Your task to perform on an android device: turn off notifications in google photos Image 0: 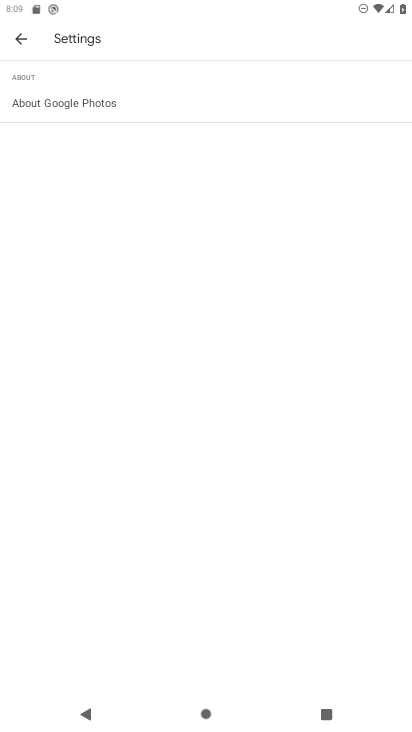
Step 0: press home button
Your task to perform on an android device: turn off notifications in google photos Image 1: 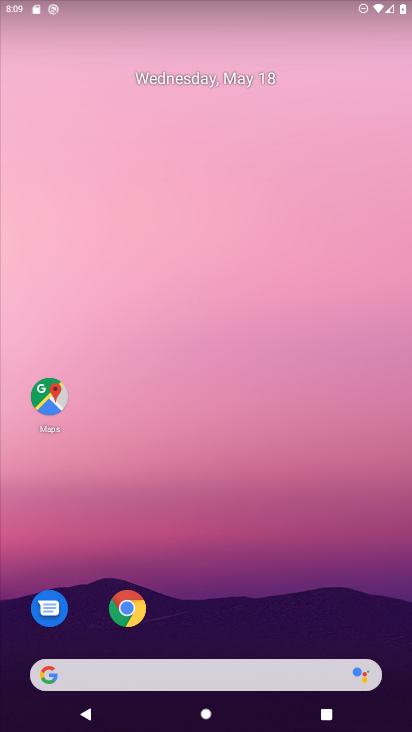
Step 1: drag from (301, 593) to (209, 6)
Your task to perform on an android device: turn off notifications in google photos Image 2: 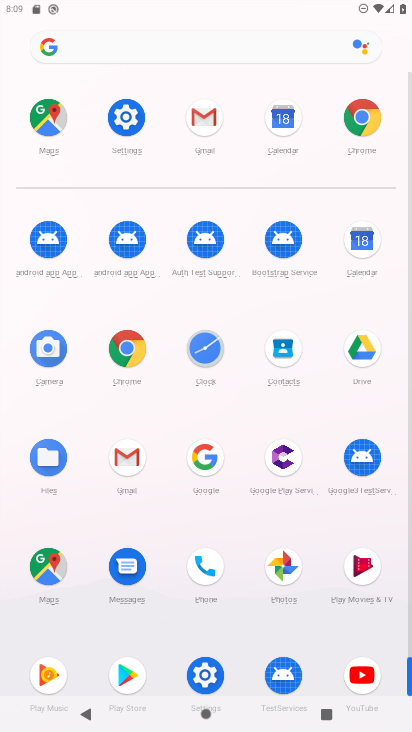
Step 2: click (288, 568)
Your task to perform on an android device: turn off notifications in google photos Image 3: 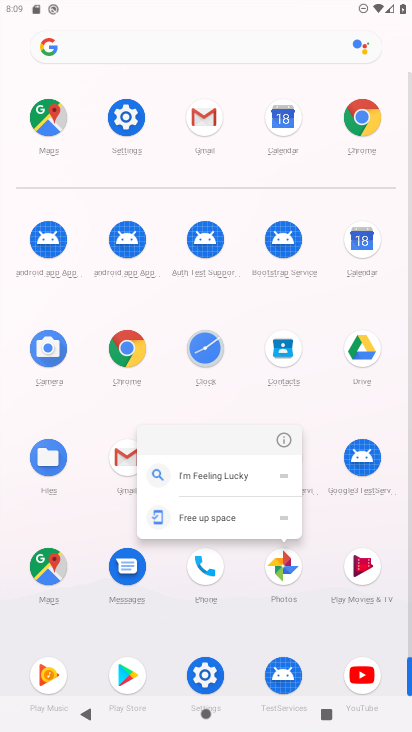
Step 3: click (288, 569)
Your task to perform on an android device: turn off notifications in google photos Image 4: 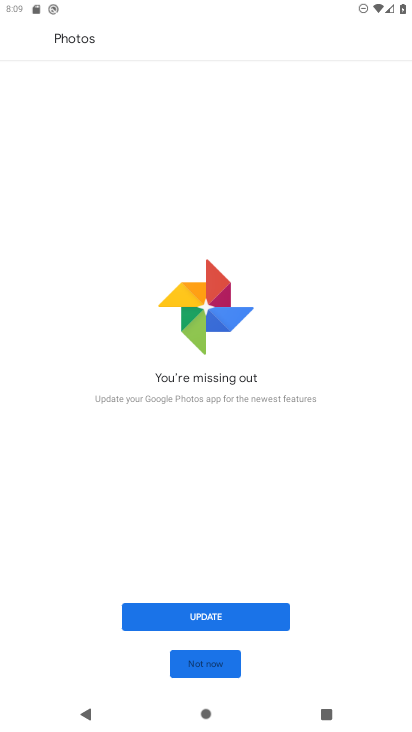
Step 4: press back button
Your task to perform on an android device: turn off notifications in google photos Image 5: 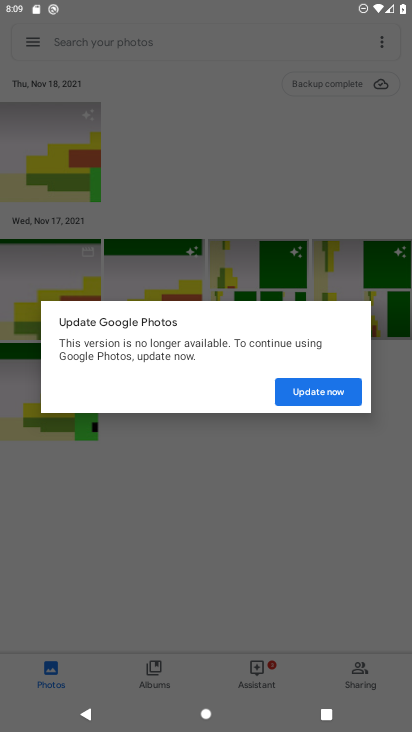
Step 5: press home button
Your task to perform on an android device: turn off notifications in google photos Image 6: 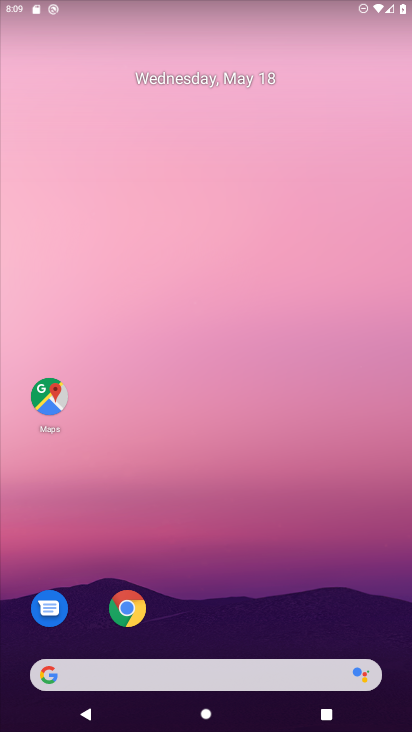
Step 6: drag from (308, 621) to (275, 51)
Your task to perform on an android device: turn off notifications in google photos Image 7: 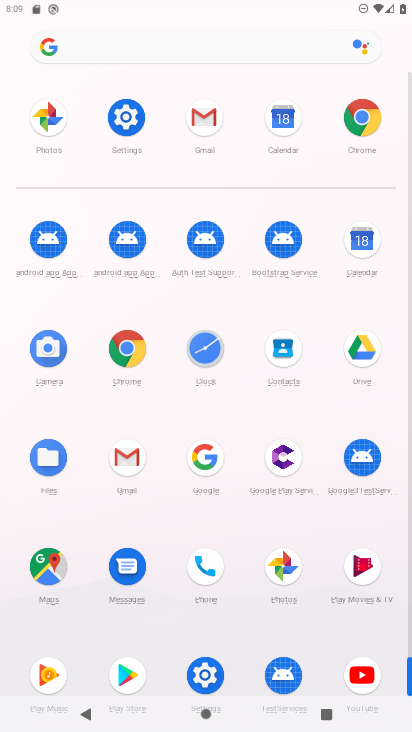
Step 7: click (277, 576)
Your task to perform on an android device: turn off notifications in google photos Image 8: 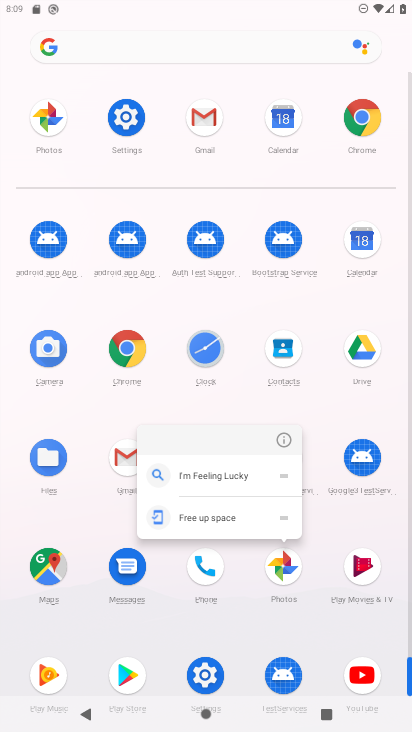
Step 8: click (282, 440)
Your task to perform on an android device: turn off notifications in google photos Image 9: 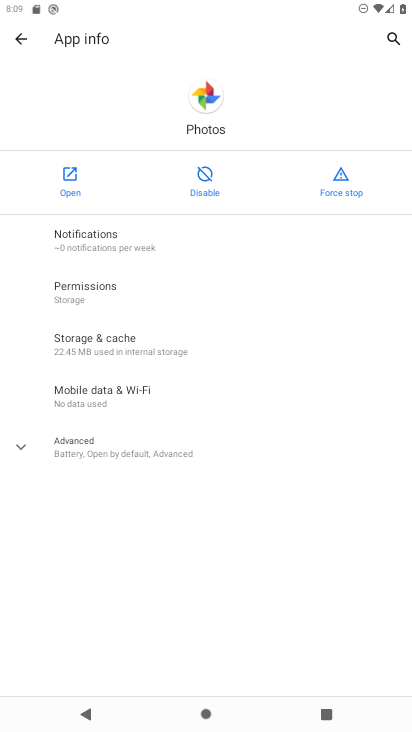
Step 9: click (117, 241)
Your task to perform on an android device: turn off notifications in google photos Image 10: 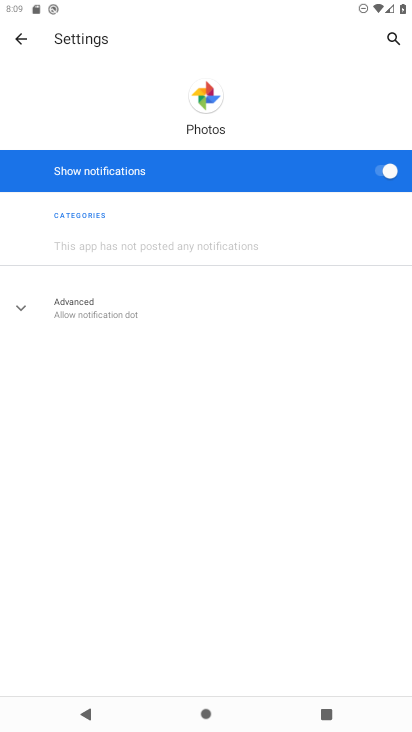
Step 10: click (386, 175)
Your task to perform on an android device: turn off notifications in google photos Image 11: 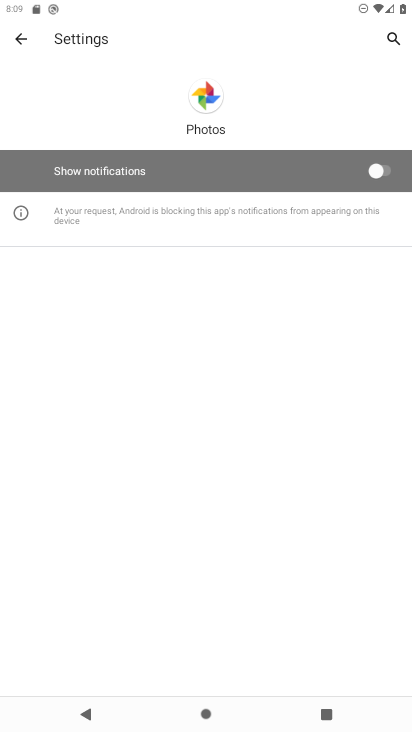
Step 11: task complete